Your task to perform on an android device: change the clock style Image 0: 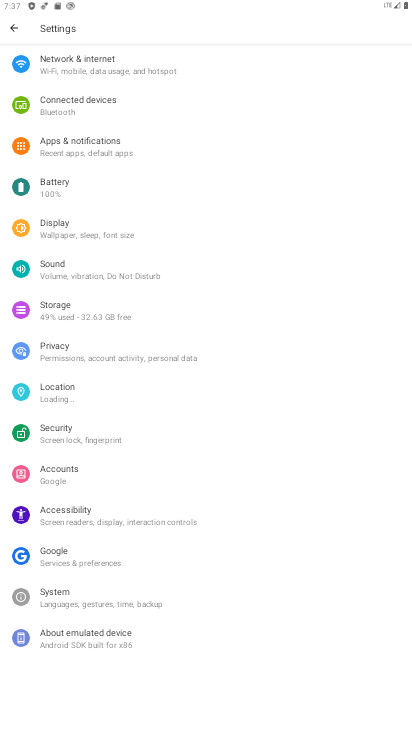
Step 0: press home button
Your task to perform on an android device: change the clock style Image 1: 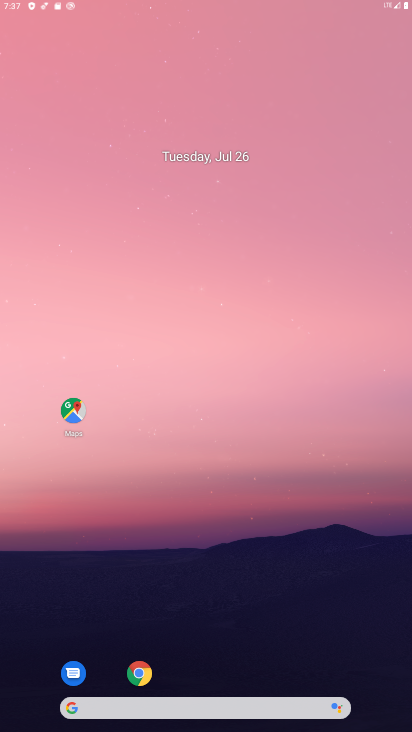
Step 1: drag from (364, 661) to (187, 47)
Your task to perform on an android device: change the clock style Image 2: 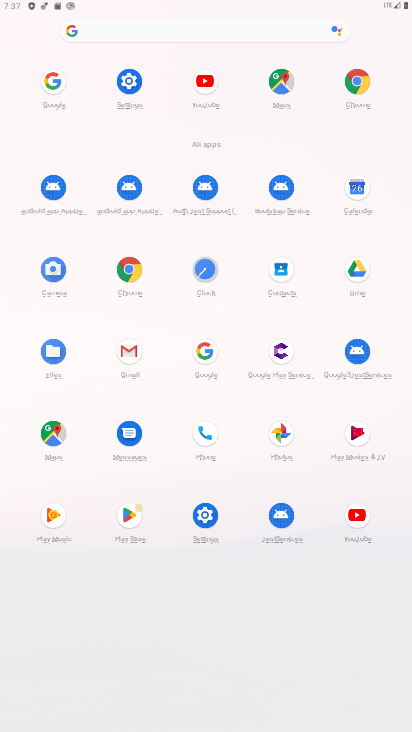
Step 2: click (208, 266)
Your task to perform on an android device: change the clock style Image 3: 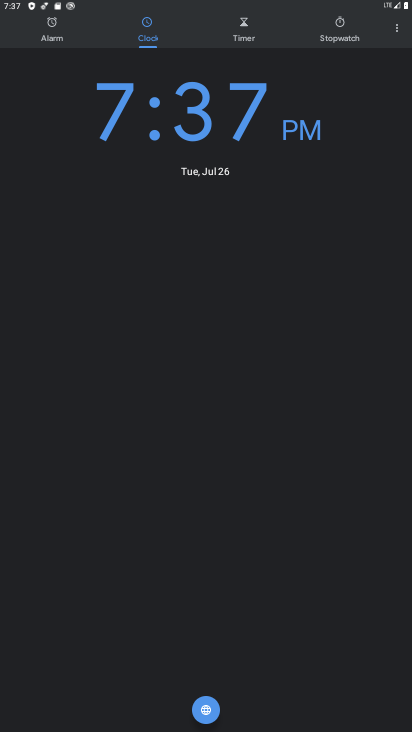
Step 3: click (394, 24)
Your task to perform on an android device: change the clock style Image 4: 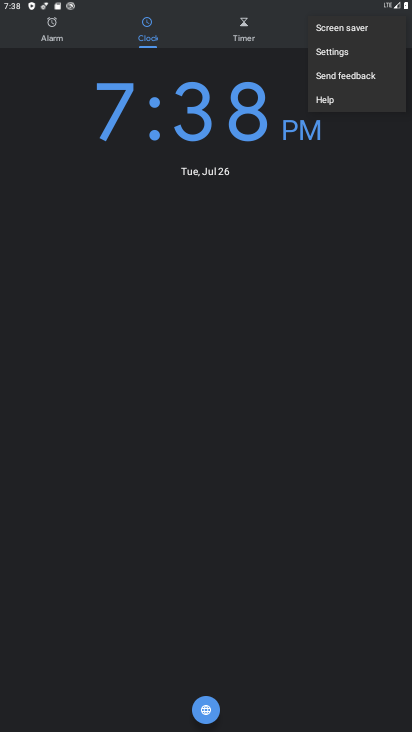
Step 4: click (337, 58)
Your task to perform on an android device: change the clock style Image 5: 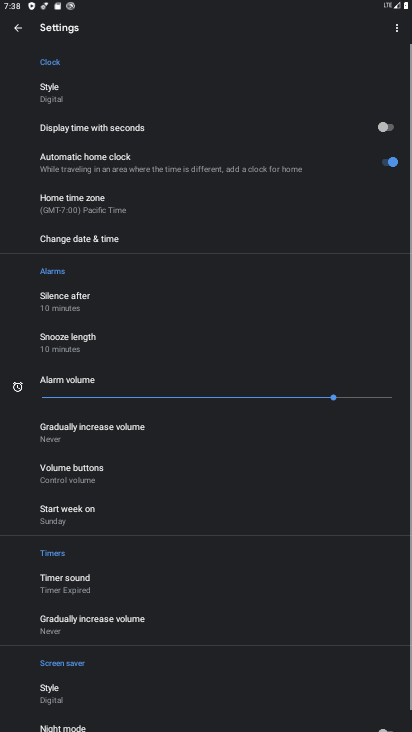
Step 5: click (68, 93)
Your task to perform on an android device: change the clock style Image 6: 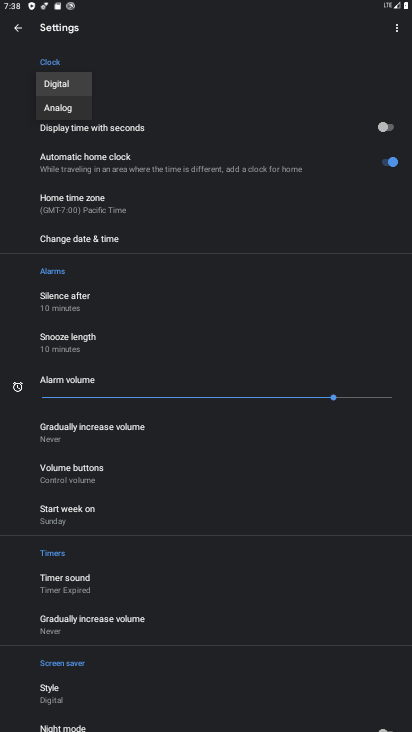
Step 6: click (71, 107)
Your task to perform on an android device: change the clock style Image 7: 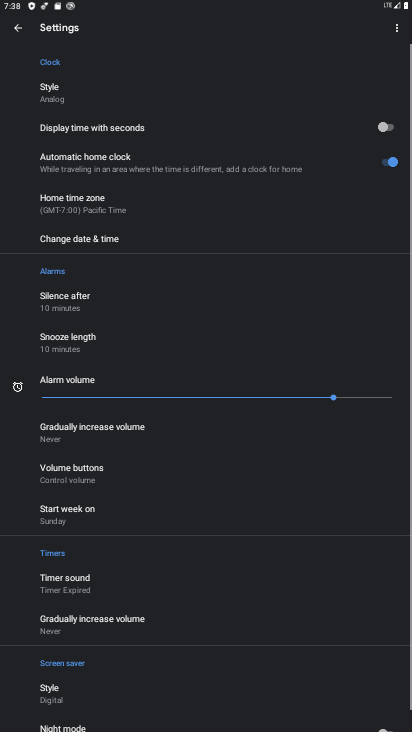
Step 7: task complete